Your task to perform on an android device: Go to Amazon Image 0: 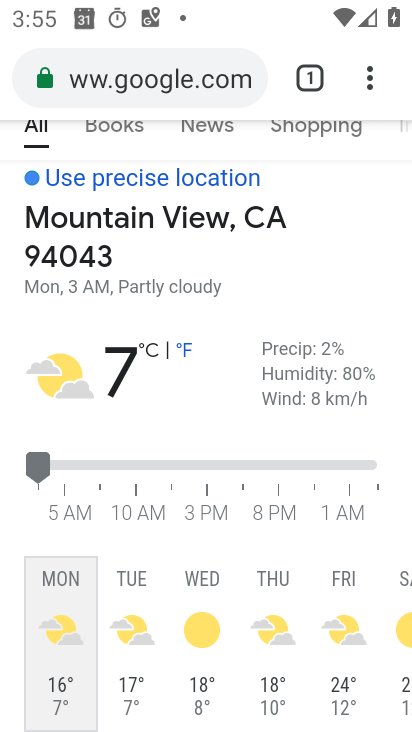
Step 0: press home button
Your task to perform on an android device: Go to Amazon Image 1: 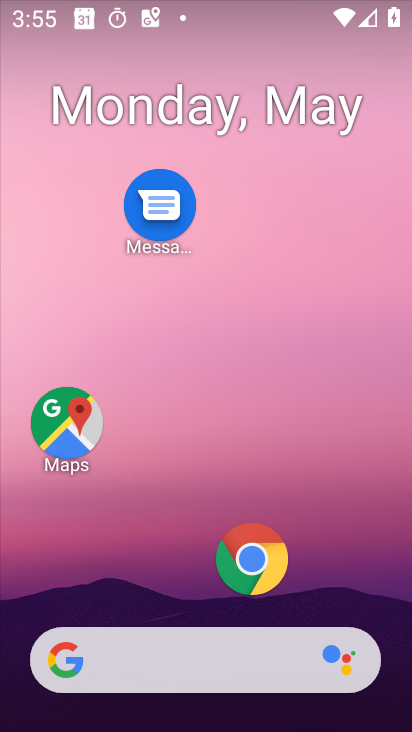
Step 1: click (253, 558)
Your task to perform on an android device: Go to Amazon Image 2: 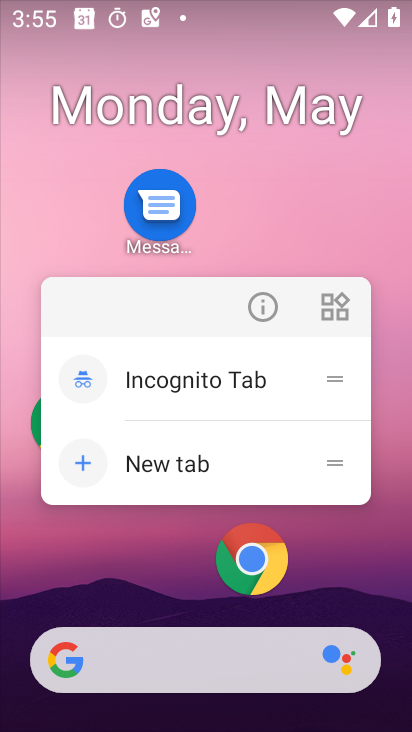
Step 2: click (268, 299)
Your task to perform on an android device: Go to Amazon Image 3: 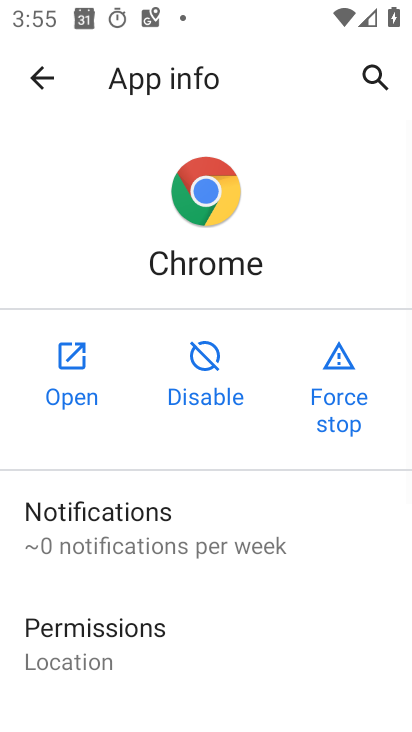
Step 3: click (75, 366)
Your task to perform on an android device: Go to Amazon Image 4: 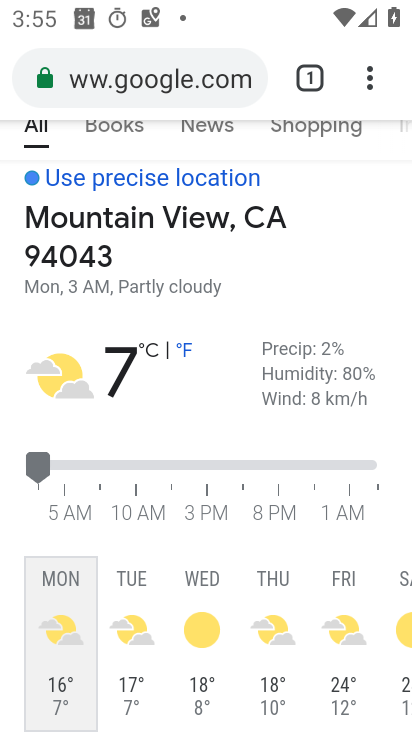
Step 4: click (151, 85)
Your task to perform on an android device: Go to Amazon Image 5: 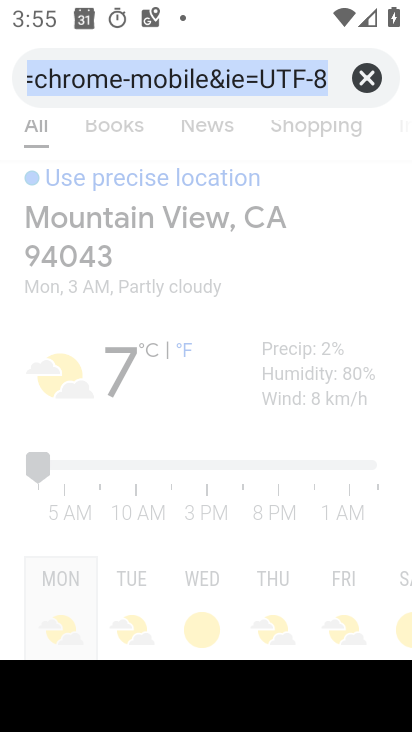
Step 5: type "amazon"
Your task to perform on an android device: Go to Amazon Image 6: 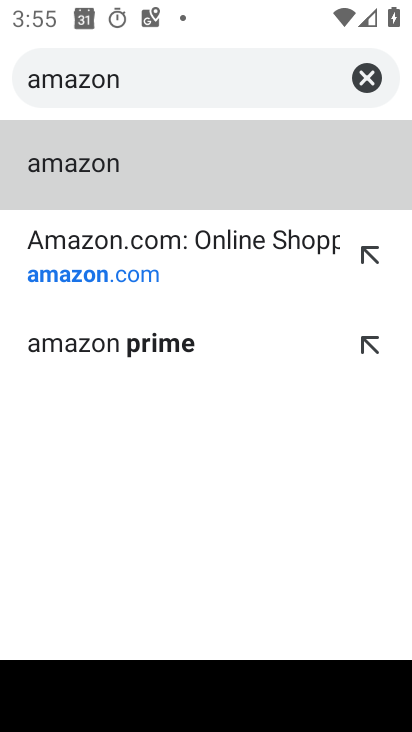
Step 6: click (189, 179)
Your task to perform on an android device: Go to Amazon Image 7: 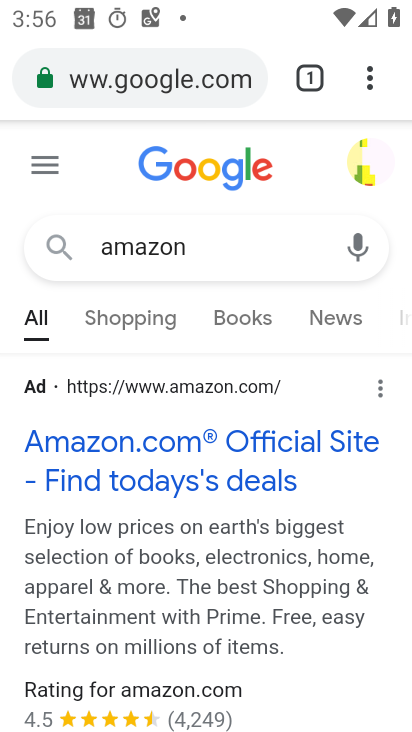
Step 7: task complete